Your task to perform on an android device: When is my next meeting? Image 0: 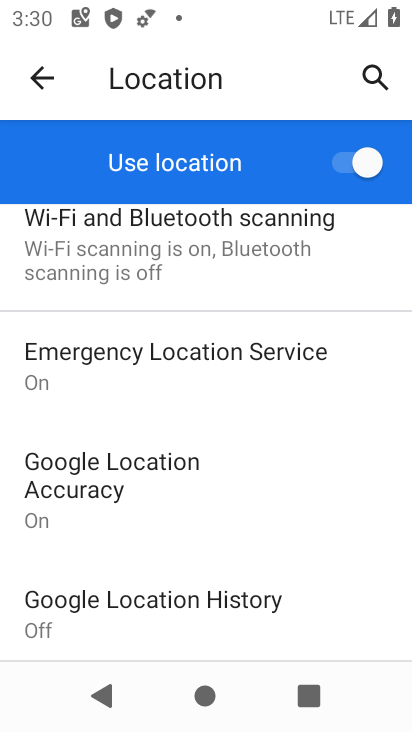
Step 0: press home button
Your task to perform on an android device: When is my next meeting? Image 1: 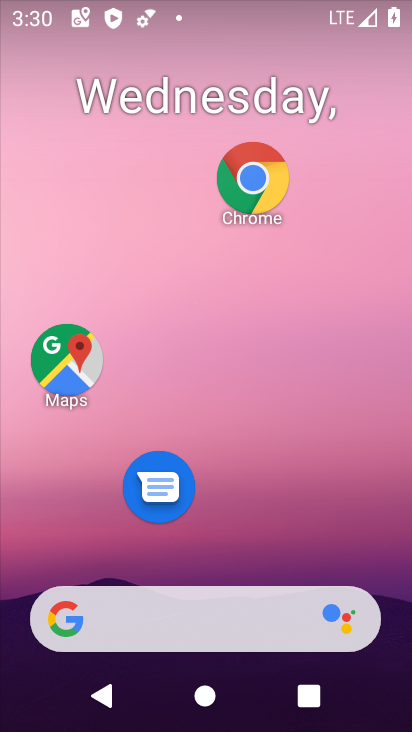
Step 1: drag from (292, 532) to (317, 12)
Your task to perform on an android device: When is my next meeting? Image 2: 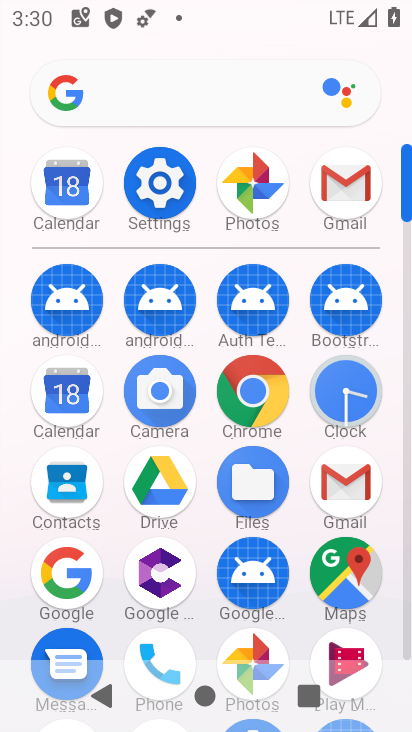
Step 2: click (53, 388)
Your task to perform on an android device: When is my next meeting? Image 3: 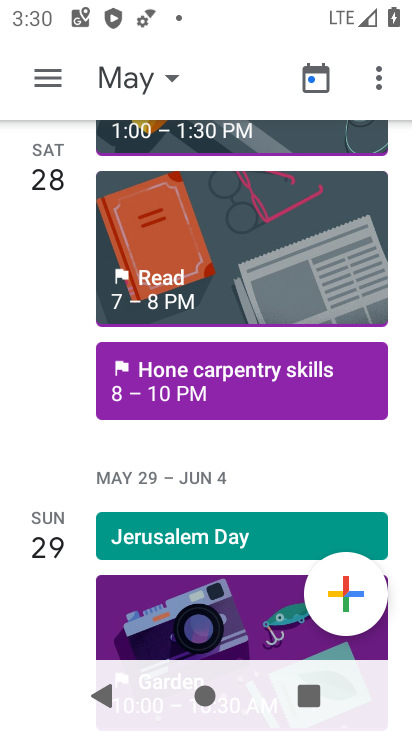
Step 3: click (138, 73)
Your task to perform on an android device: When is my next meeting? Image 4: 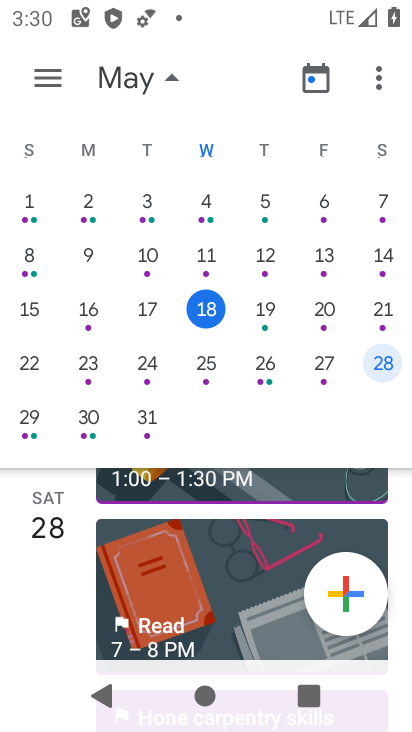
Step 4: click (213, 300)
Your task to perform on an android device: When is my next meeting? Image 5: 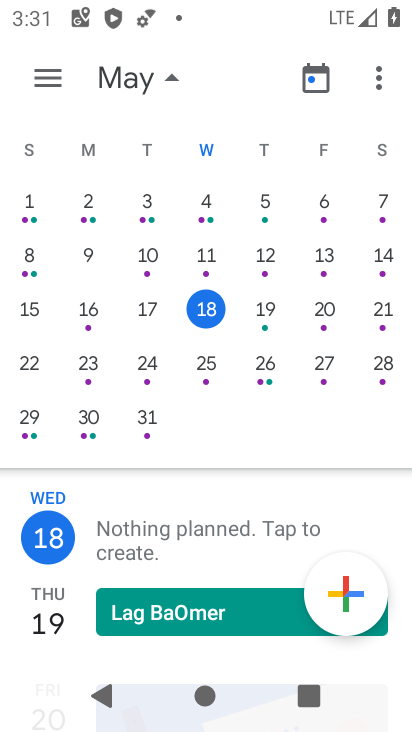
Step 5: task complete